Your task to perform on an android device: Open the map Image 0: 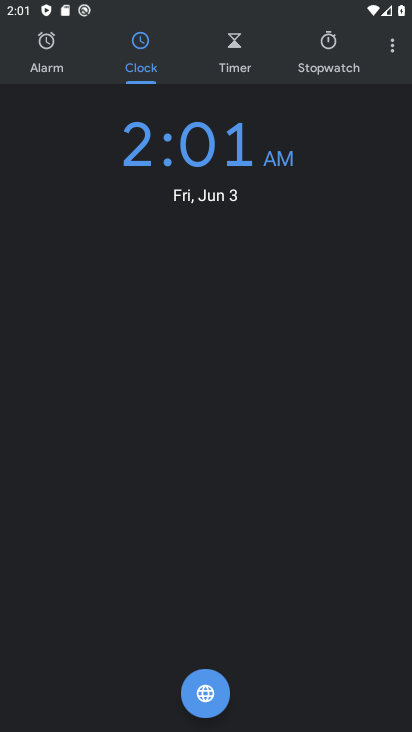
Step 0: press home button
Your task to perform on an android device: Open the map Image 1: 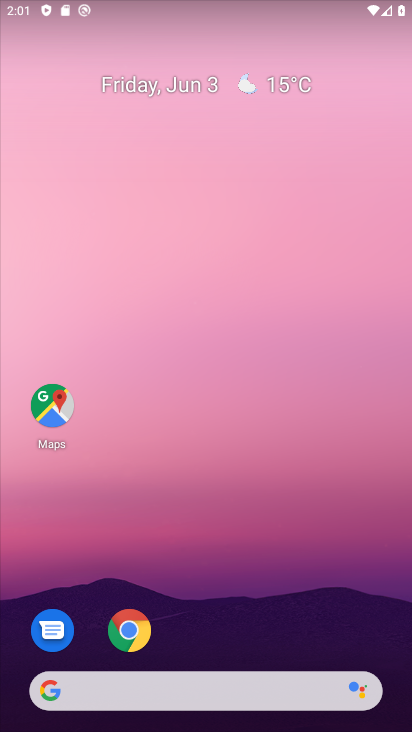
Step 1: click (58, 392)
Your task to perform on an android device: Open the map Image 2: 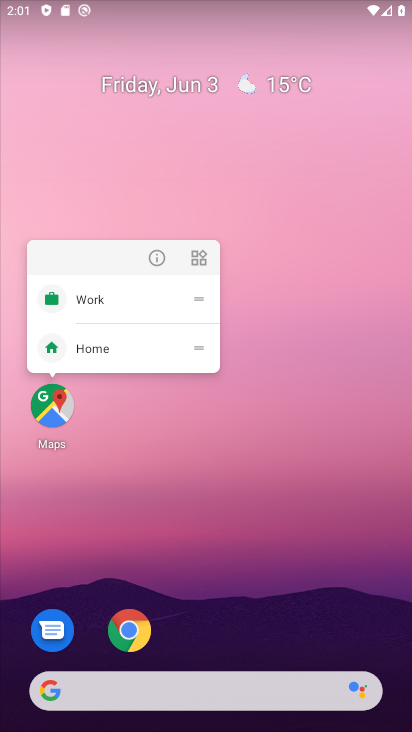
Step 2: click (54, 422)
Your task to perform on an android device: Open the map Image 3: 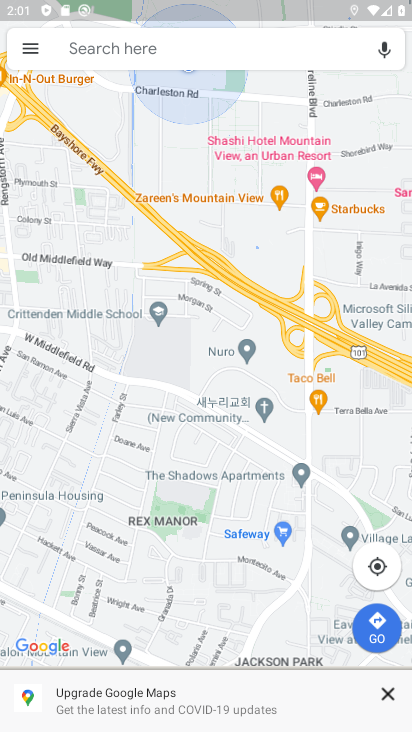
Step 3: task complete